Your task to perform on an android device: toggle data saver in the chrome app Image 0: 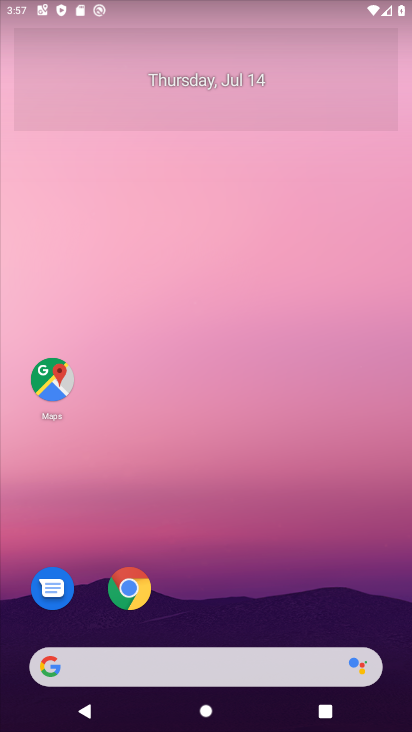
Step 0: drag from (305, 333) to (326, 66)
Your task to perform on an android device: toggle data saver in the chrome app Image 1: 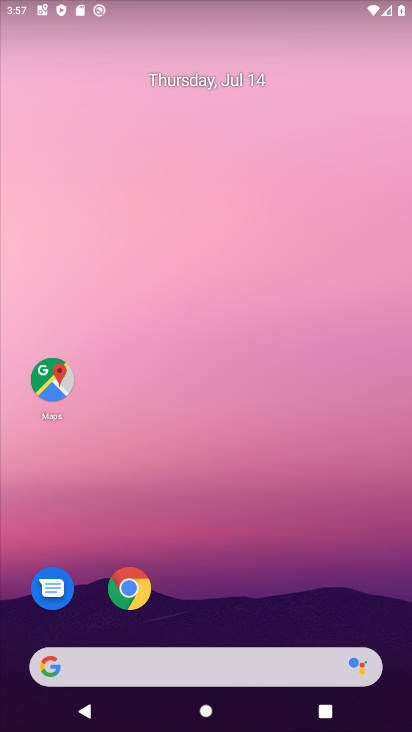
Step 1: drag from (160, 567) to (221, 69)
Your task to perform on an android device: toggle data saver in the chrome app Image 2: 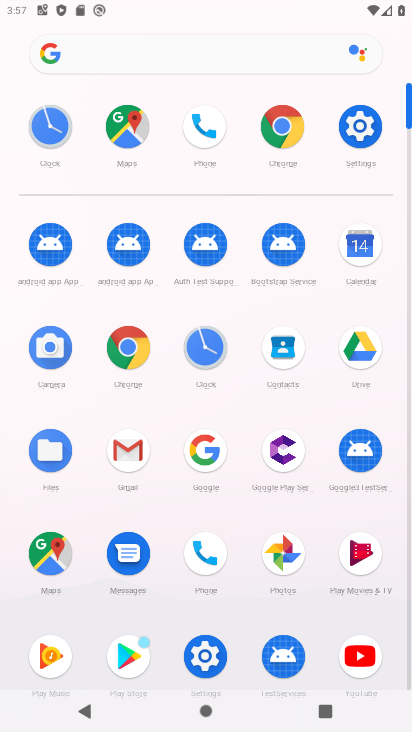
Step 2: click (278, 141)
Your task to perform on an android device: toggle data saver in the chrome app Image 3: 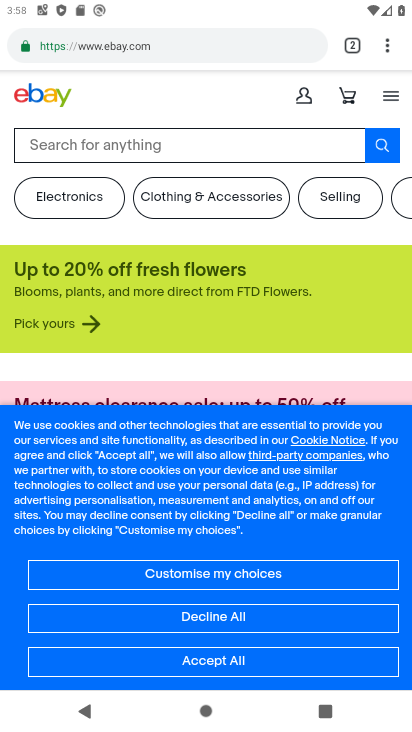
Step 3: drag from (387, 43) to (213, 569)
Your task to perform on an android device: toggle data saver in the chrome app Image 4: 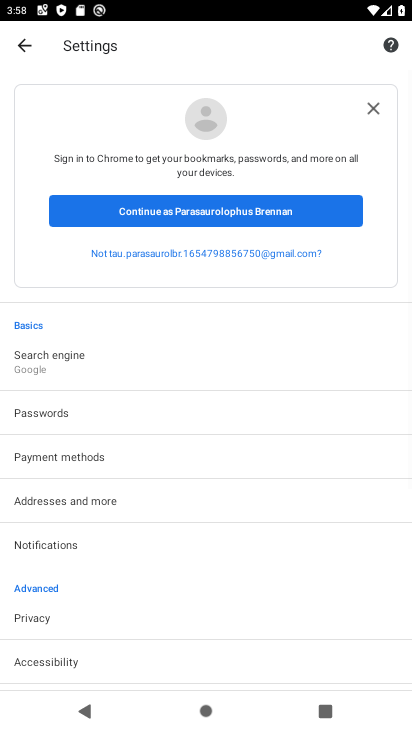
Step 4: drag from (117, 646) to (130, 227)
Your task to perform on an android device: toggle data saver in the chrome app Image 5: 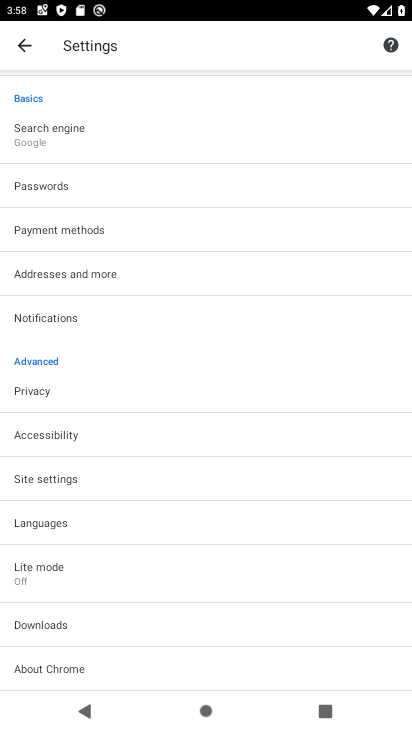
Step 5: click (56, 572)
Your task to perform on an android device: toggle data saver in the chrome app Image 6: 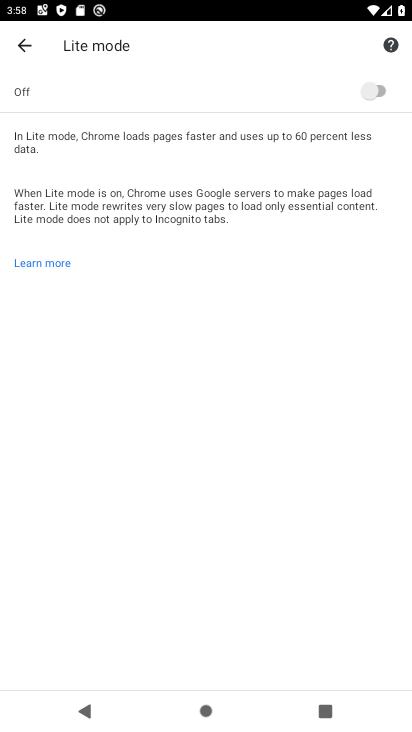
Step 6: click (373, 93)
Your task to perform on an android device: toggle data saver in the chrome app Image 7: 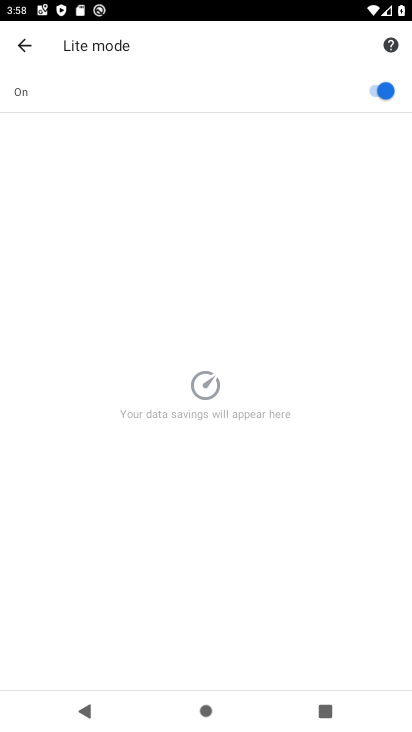
Step 7: task complete